Your task to perform on an android device: Show me popular games on the Play Store Image 0: 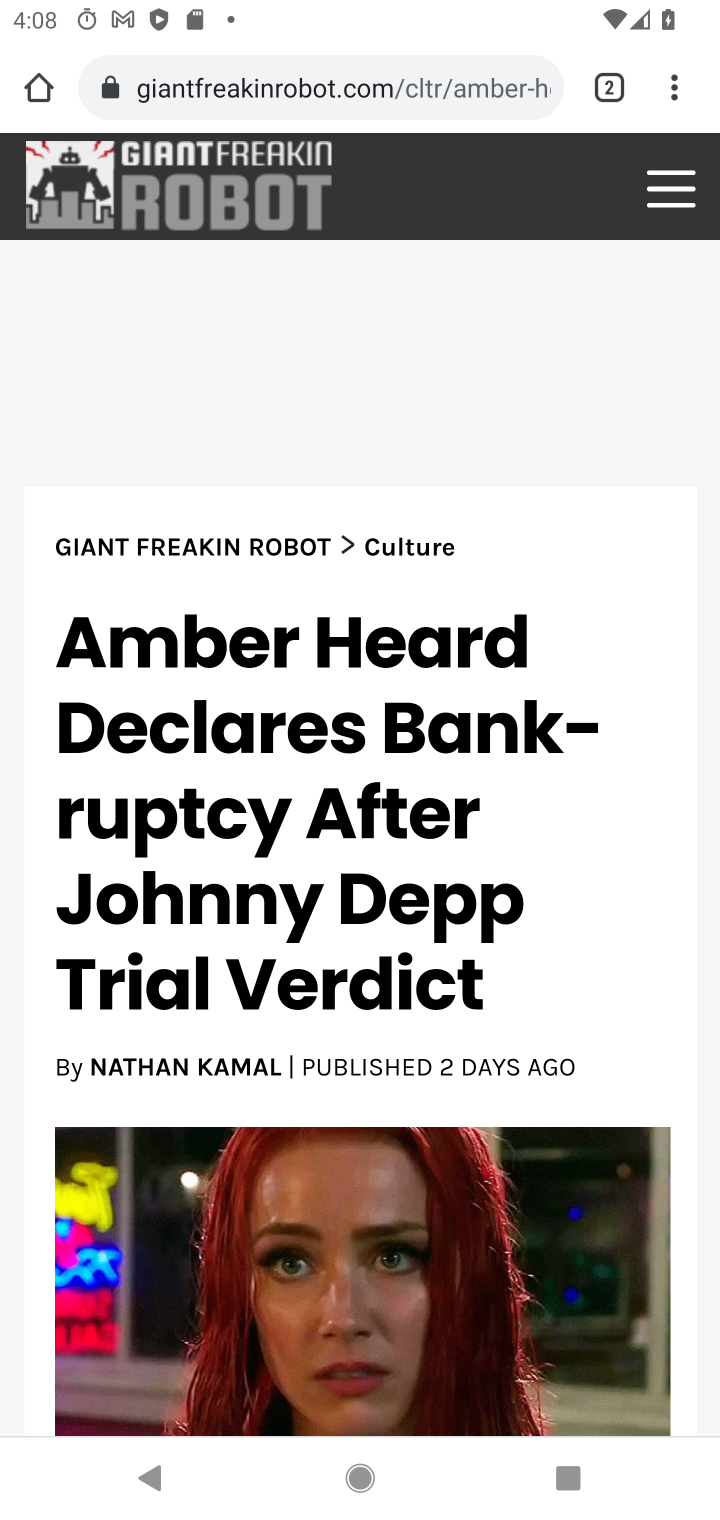
Step 0: press home button
Your task to perform on an android device: Show me popular games on the Play Store Image 1: 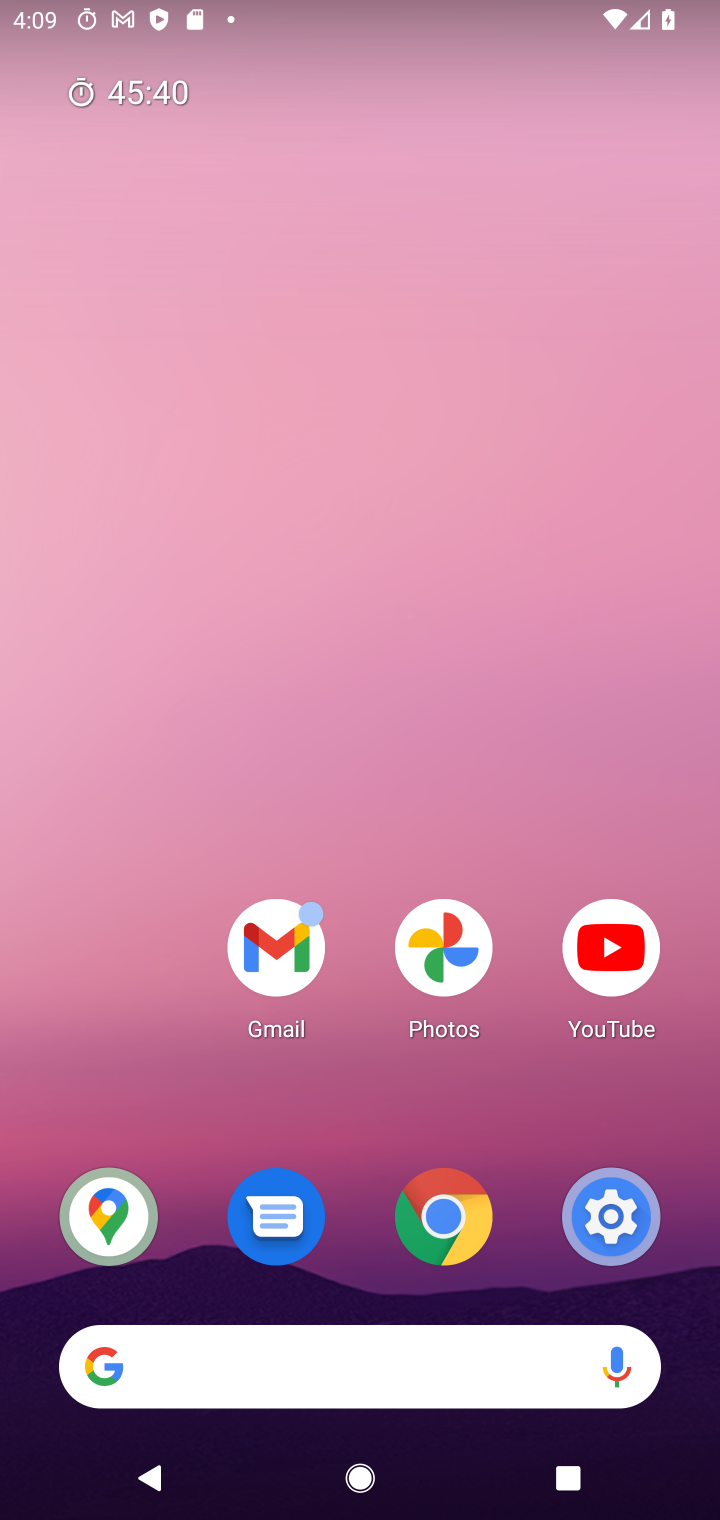
Step 1: task complete